Your task to perform on an android device: install app "LiveIn - Share Your Moment" Image 0: 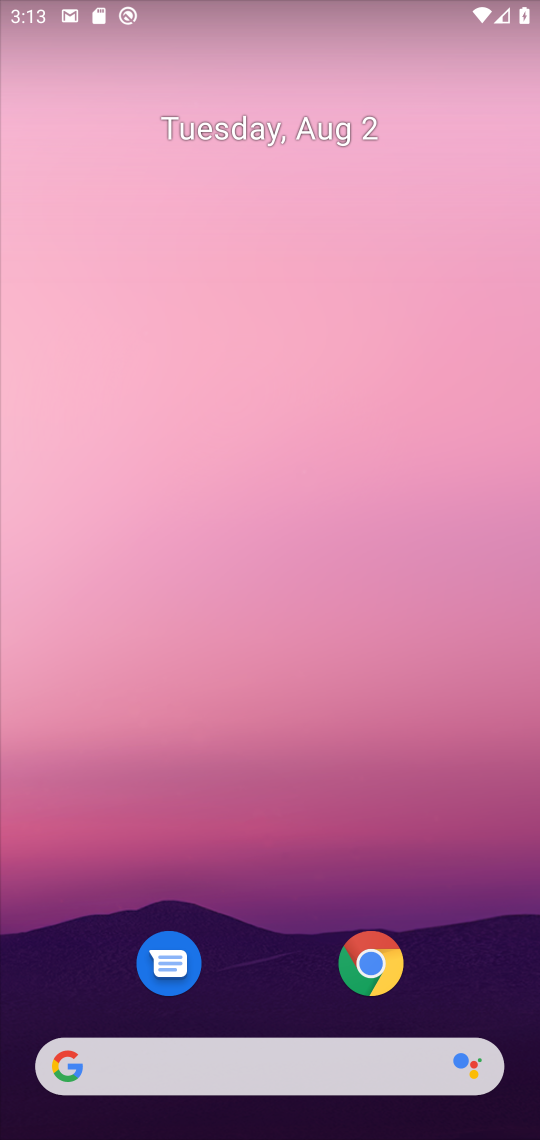
Step 0: drag from (251, 967) to (537, 14)
Your task to perform on an android device: install app "LiveIn - Share Your Moment" Image 1: 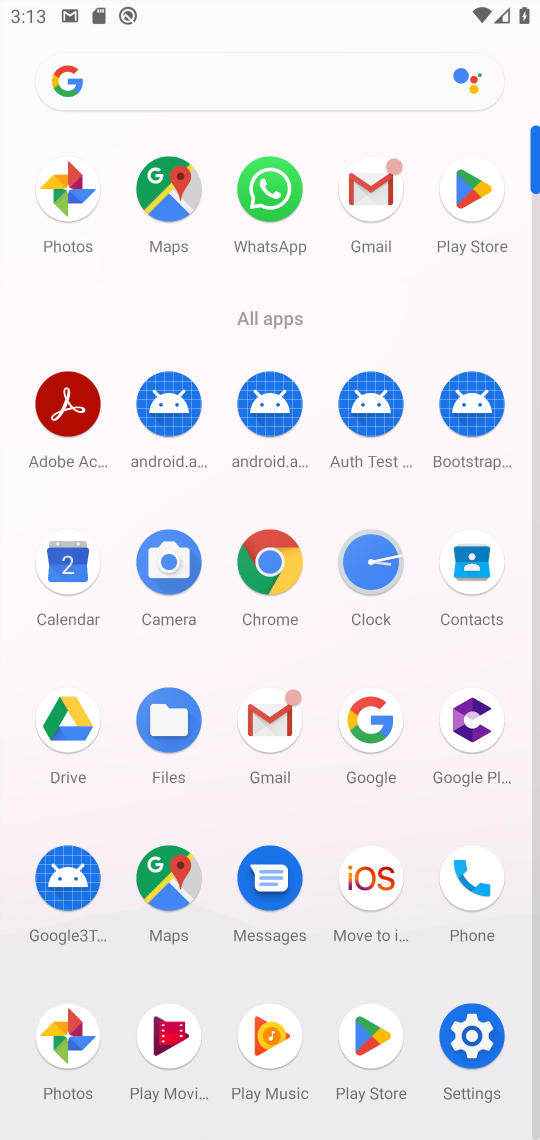
Step 1: click (466, 226)
Your task to perform on an android device: install app "LiveIn - Share Your Moment" Image 2: 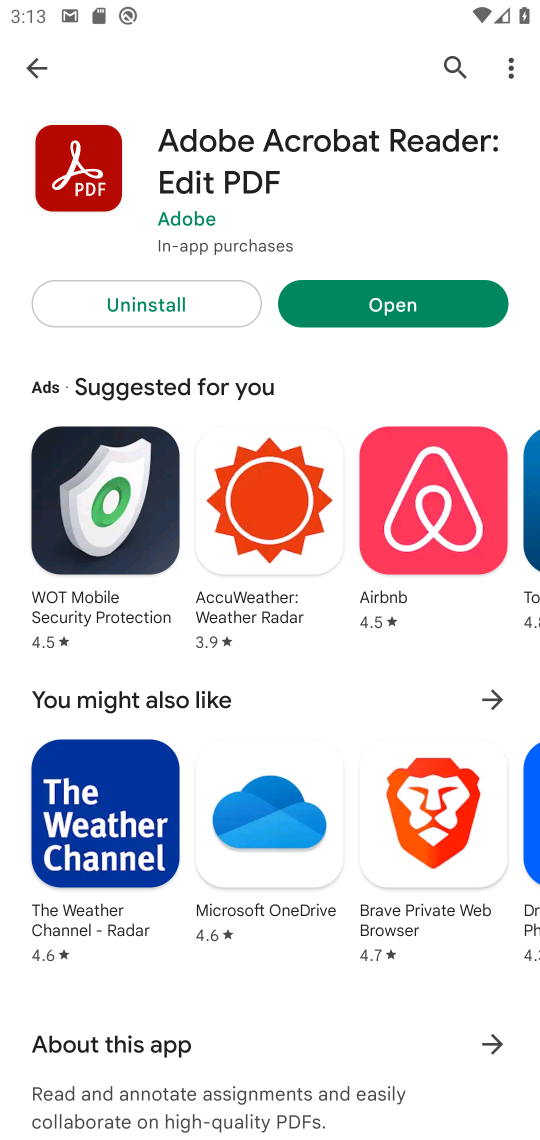
Step 2: click (455, 53)
Your task to perform on an android device: install app "LiveIn - Share Your Moment" Image 3: 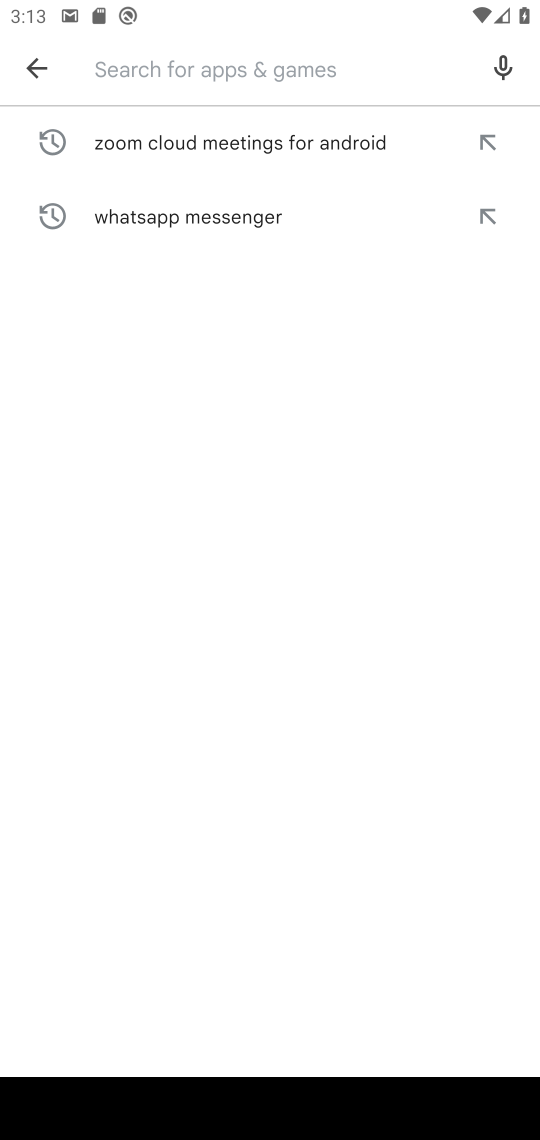
Step 3: type "liveIn - share your moment"
Your task to perform on an android device: install app "LiveIn - Share Your Moment" Image 4: 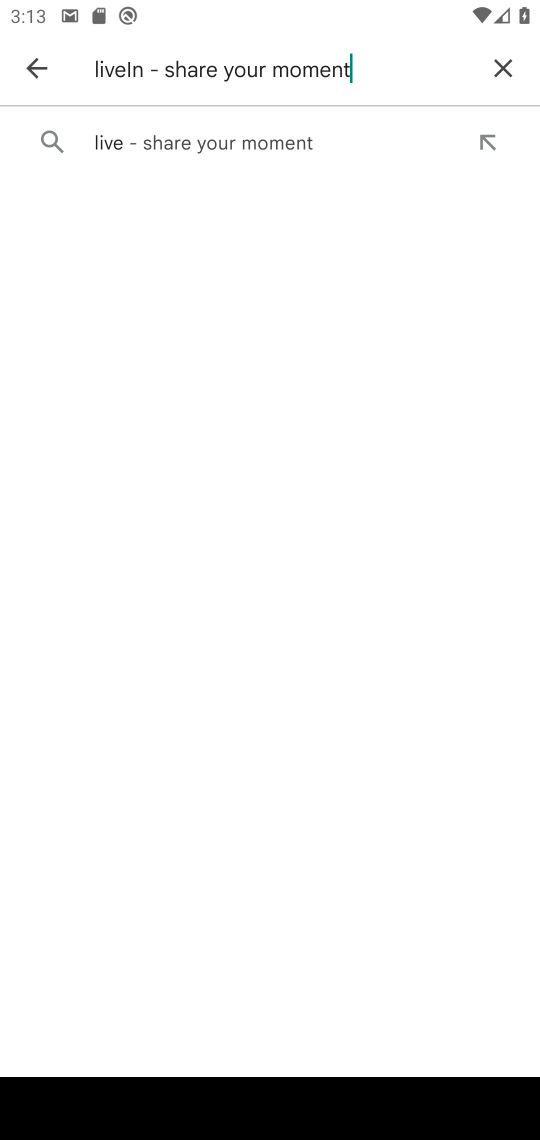
Step 4: click (198, 151)
Your task to perform on an android device: install app "LiveIn - Share Your Moment" Image 5: 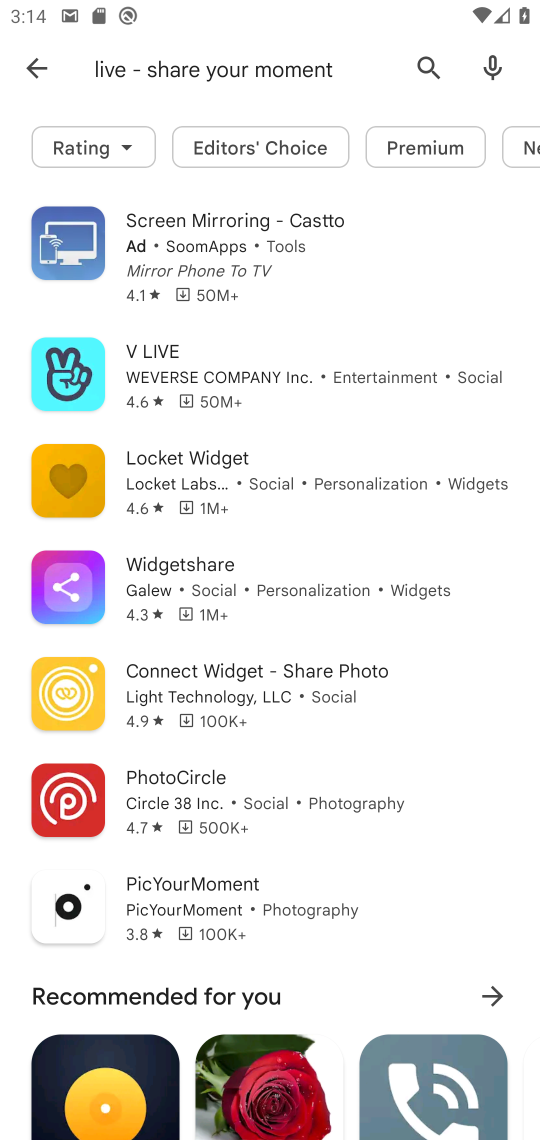
Step 5: task complete